Your task to perform on an android device: turn on improve location accuracy Image 0: 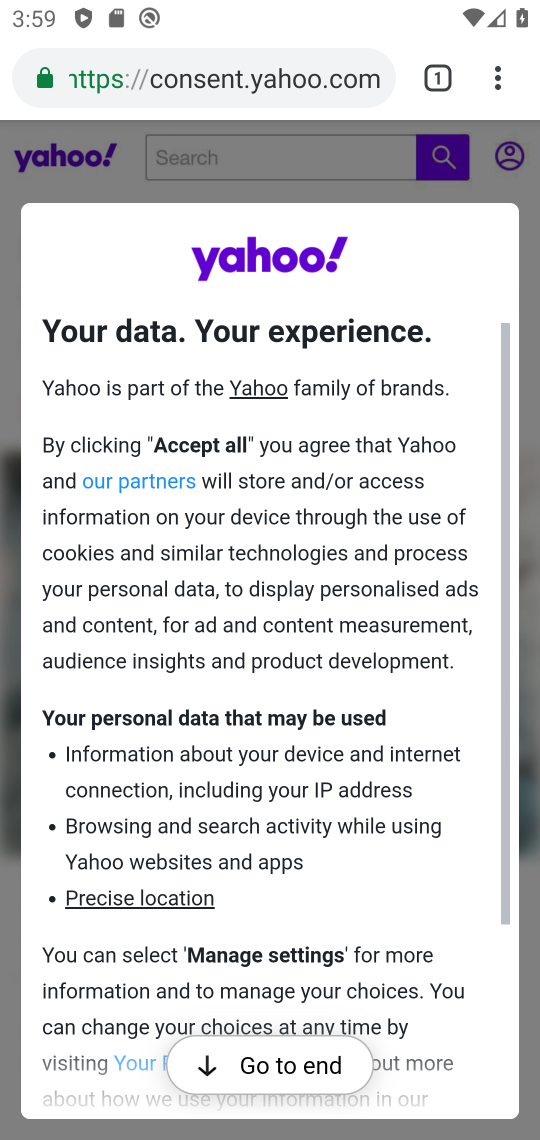
Step 0: press home button
Your task to perform on an android device: turn on improve location accuracy Image 1: 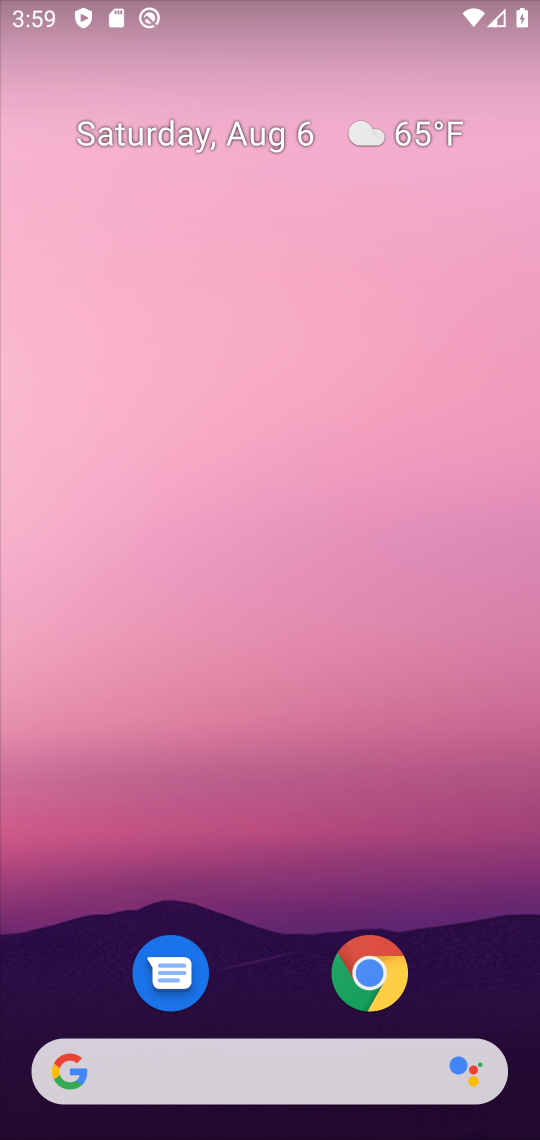
Step 1: drag from (437, 915) to (325, 0)
Your task to perform on an android device: turn on improve location accuracy Image 2: 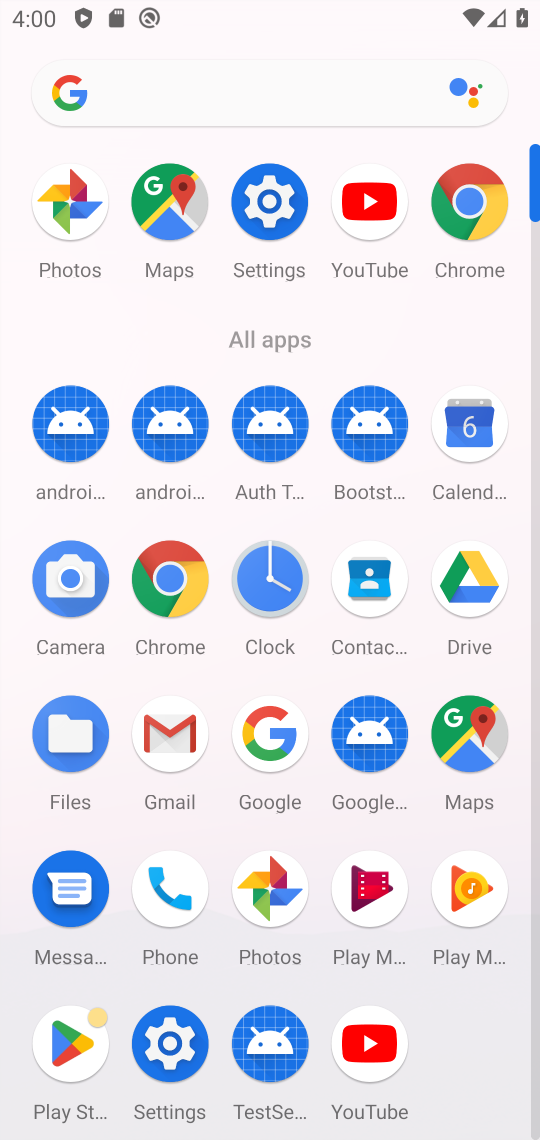
Step 2: click (153, 1034)
Your task to perform on an android device: turn on improve location accuracy Image 3: 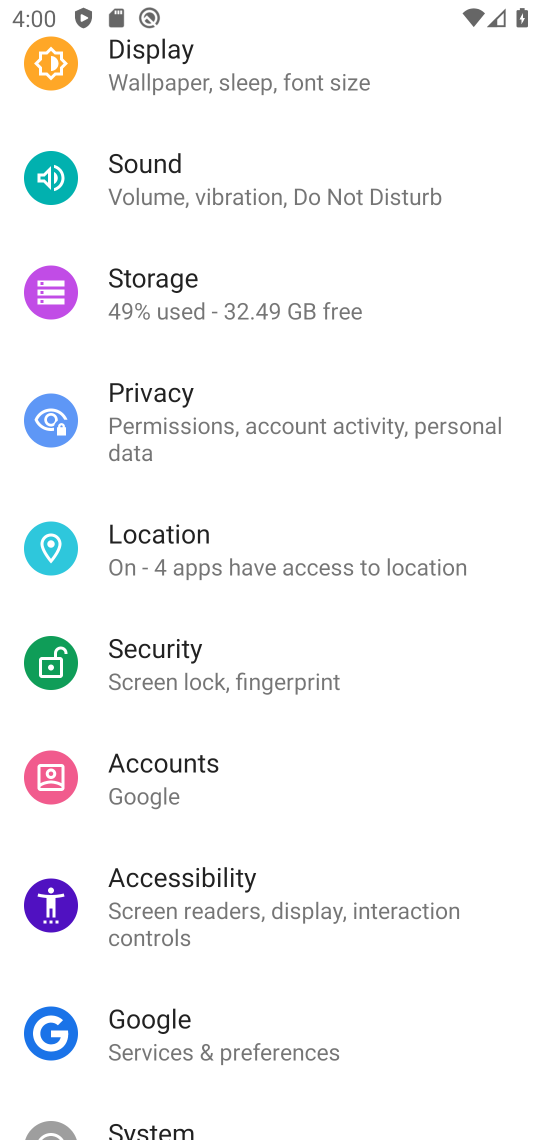
Step 3: click (186, 536)
Your task to perform on an android device: turn on improve location accuracy Image 4: 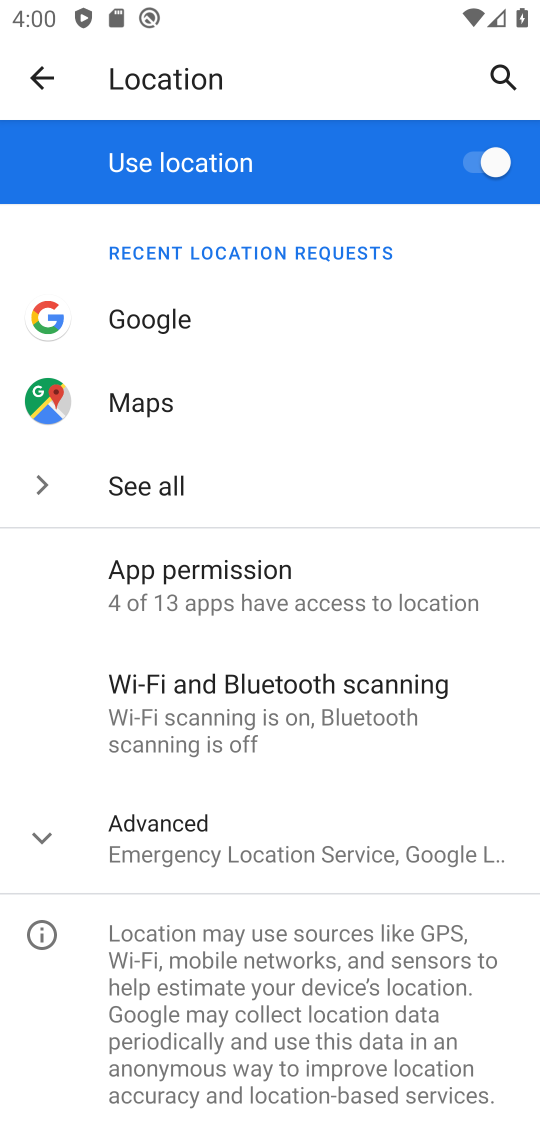
Step 4: click (108, 830)
Your task to perform on an android device: turn on improve location accuracy Image 5: 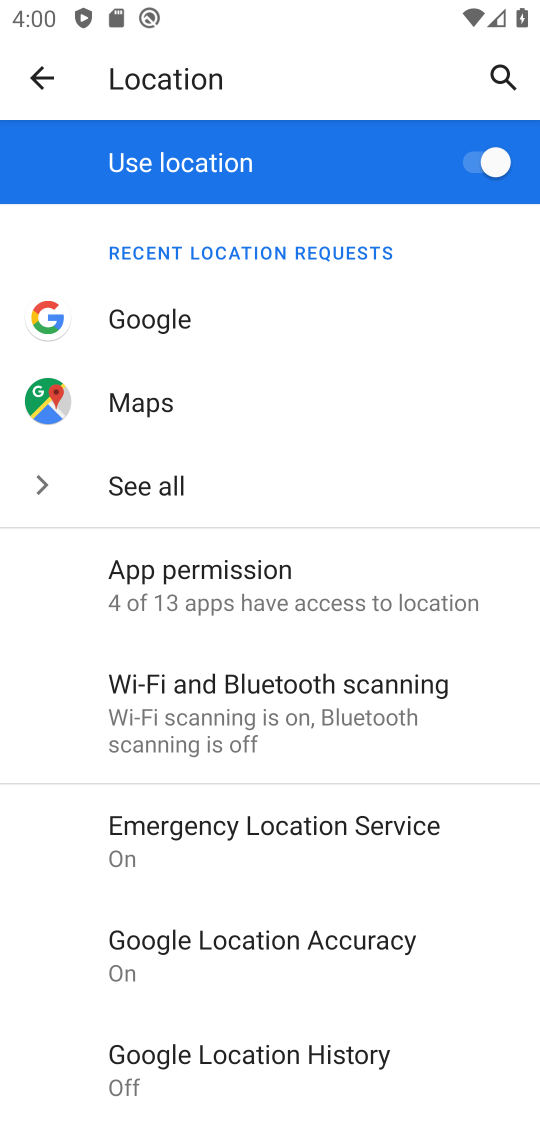
Step 5: click (331, 949)
Your task to perform on an android device: turn on improve location accuracy Image 6: 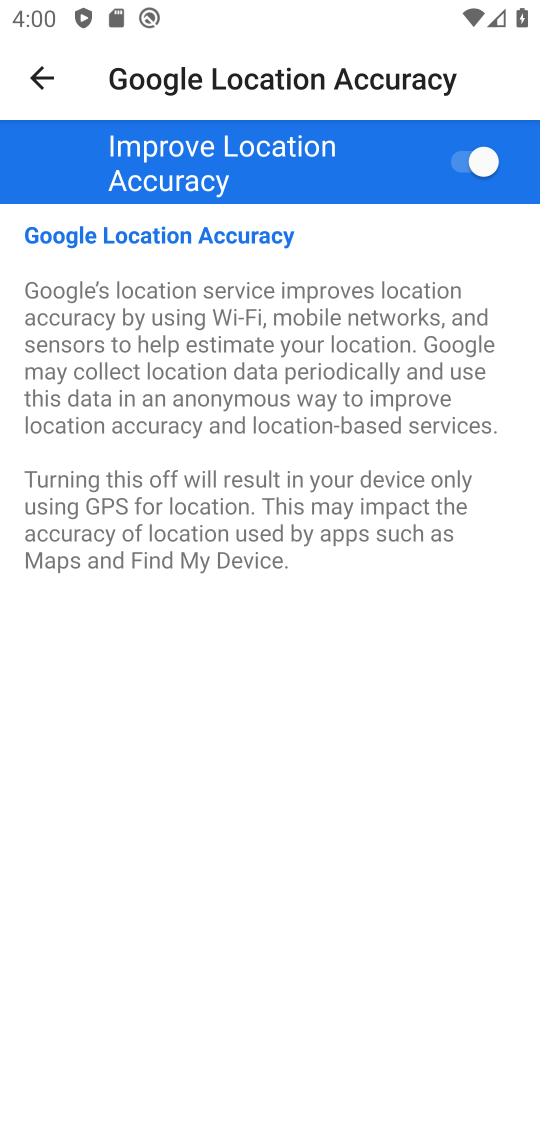
Step 6: task complete